Your task to perform on an android device: Go to settings Image 0: 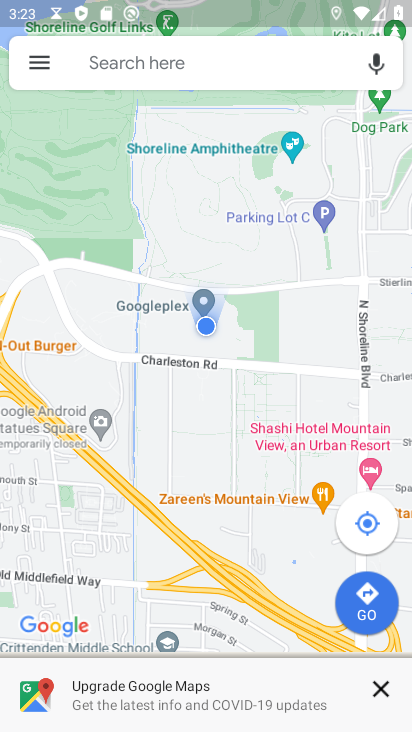
Step 0: press home button
Your task to perform on an android device: Go to settings Image 1: 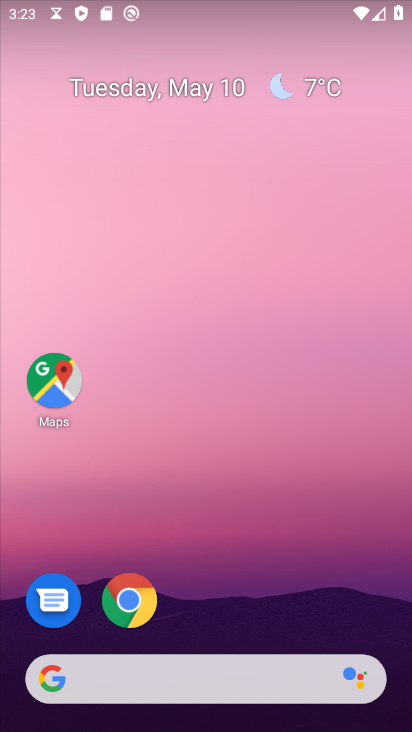
Step 1: drag from (364, 625) to (317, 347)
Your task to perform on an android device: Go to settings Image 2: 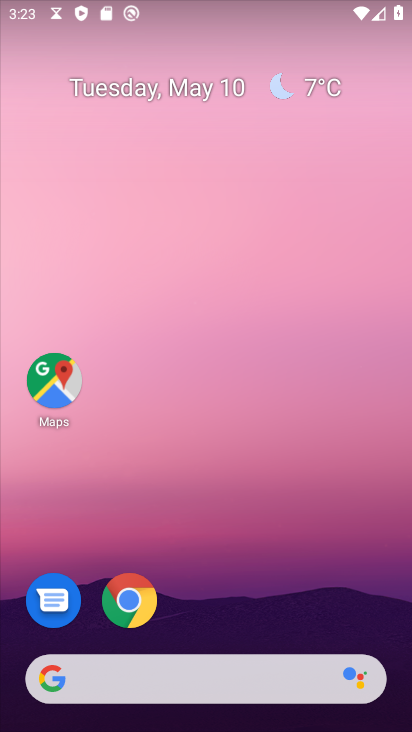
Step 2: drag from (381, 661) to (96, 184)
Your task to perform on an android device: Go to settings Image 3: 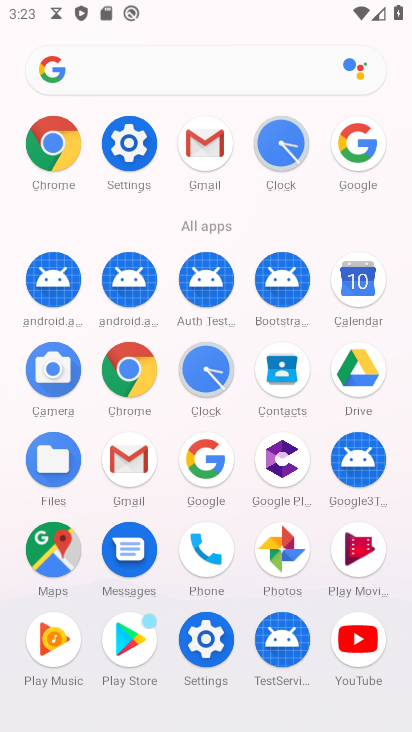
Step 3: drag from (315, 451) to (0, 173)
Your task to perform on an android device: Go to settings Image 4: 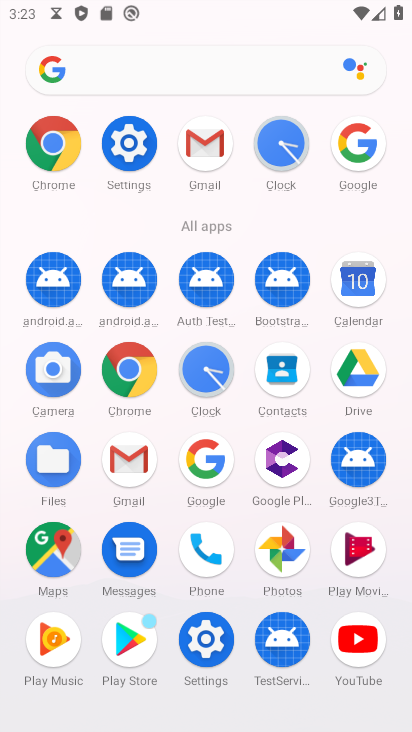
Step 4: click (143, 151)
Your task to perform on an android device: Go to settings Image 5: 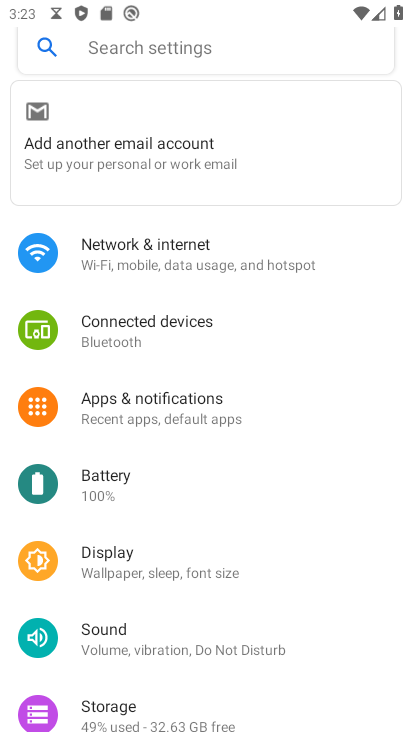
Step 5: task complete